Your task to perform on an android device: See recent photos Image 0: 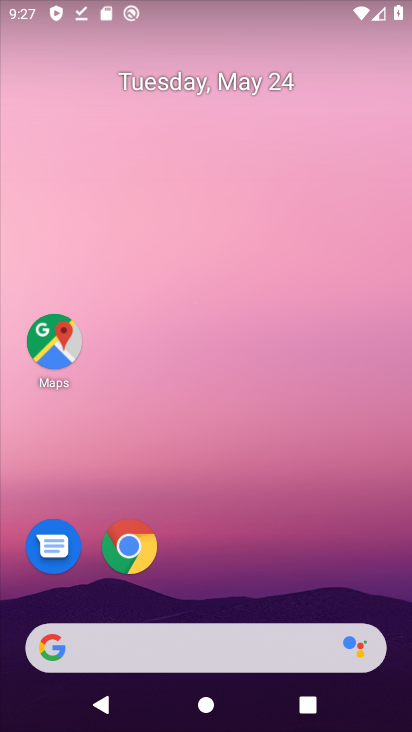
Step 0: drag from (277, 529) to (250, 4)
Your task to perform on an android device: See recent photos Image 1: 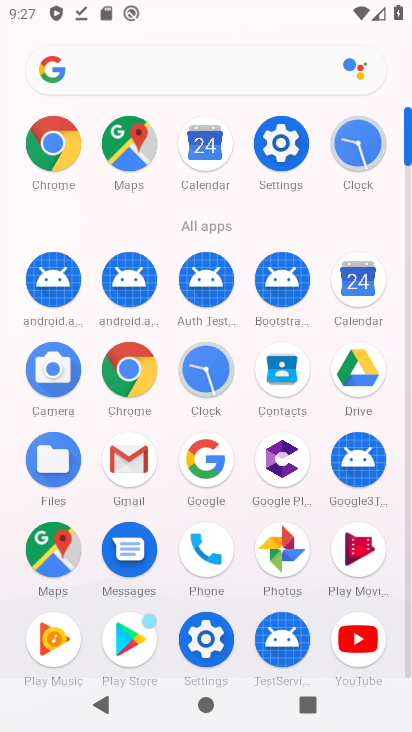
Step 1: click (282, 548)
Your task to perform on an android device: See recent photos Image 2: 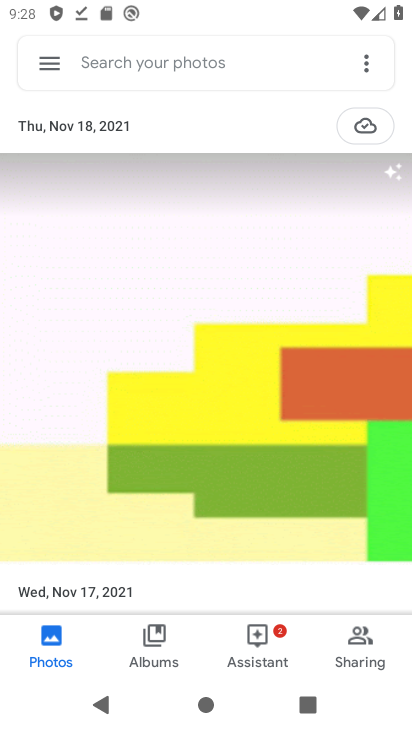
Step 2: task complete